Your task to perform on an android device: turn on wifi Image 0: 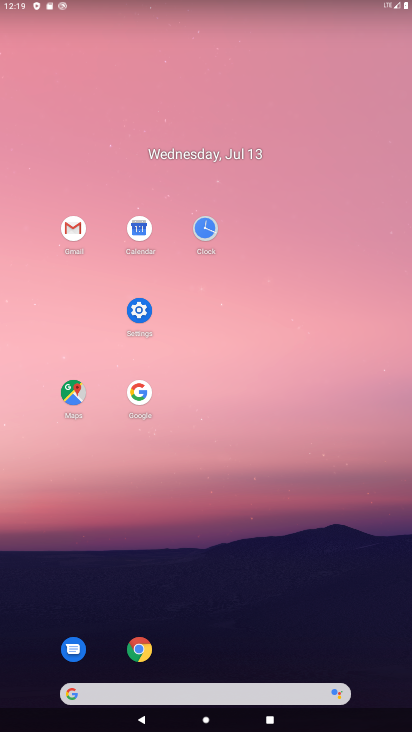
Step 0: click (141, 322)
Your task to perform on an android device: turn on wifi Image 1: 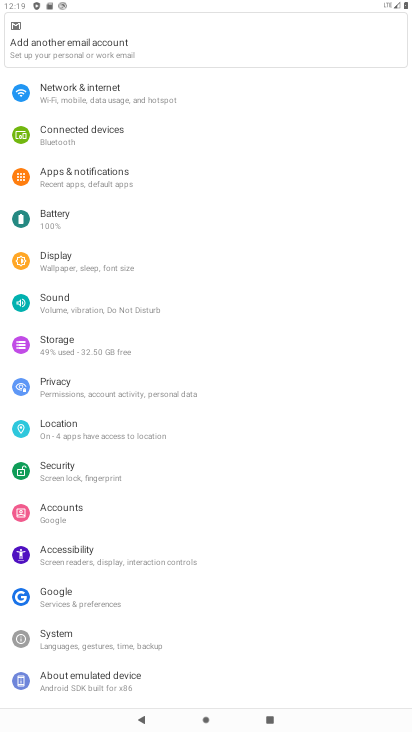
Step 1: click (218, 95)
Your task to perform on an android device: turn on wifi Image 2: 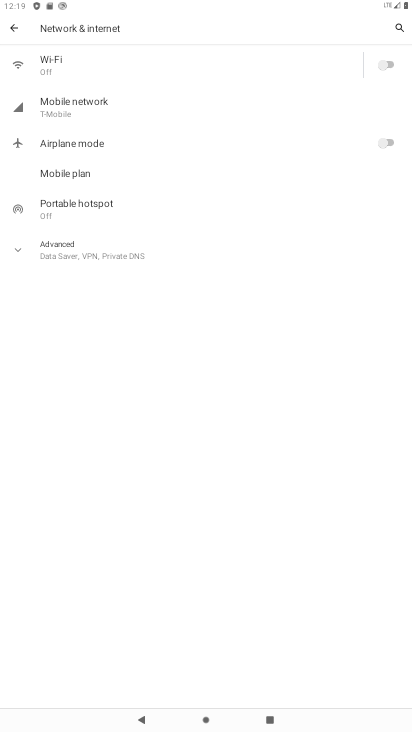
Step 2: click (382, 70)
Your task to perform on an android device: turn on wifi Image 3: 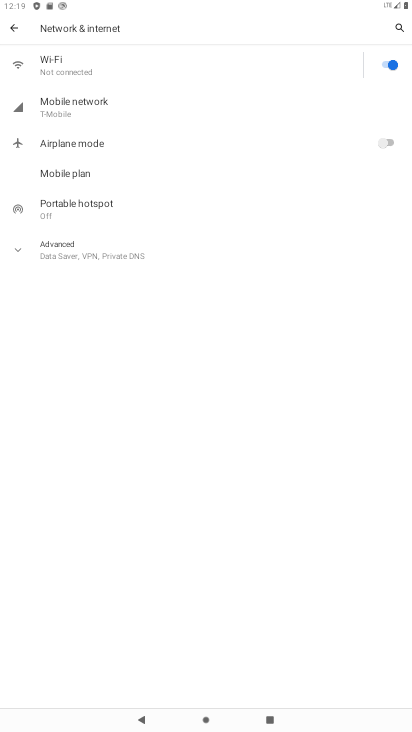
Step 3: task complete